Your task to perform on an android device: open the mobile data screen to see how much data has been used Image 0: 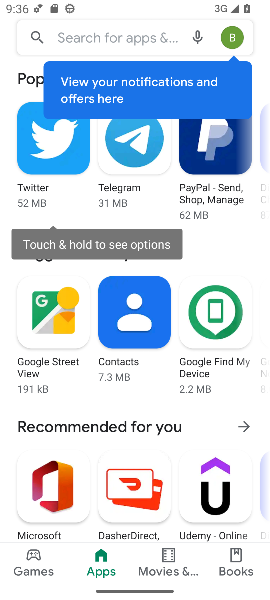
Step 0: press home button
Your task to perform on an android device: open the mobile data screen to see how much data has been used Image 1: 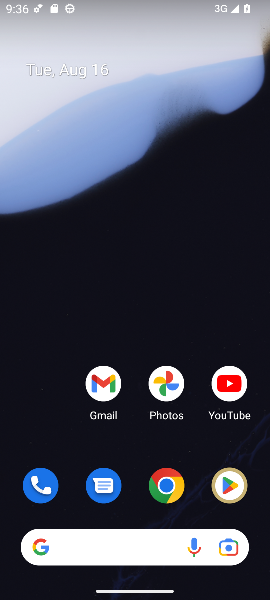
Step 1: drag from (185, 452) to (161, 166)
Your task to perform on an android device: open the mobile data screen to see how much data has been used Image 2: 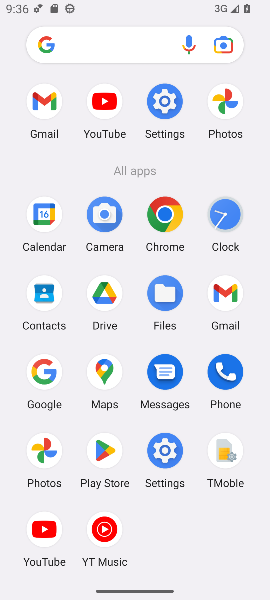
Step 2: click (167, 108)
Your task to perform on an android device: open the mobile data screen to see how much data has been used Image 3: 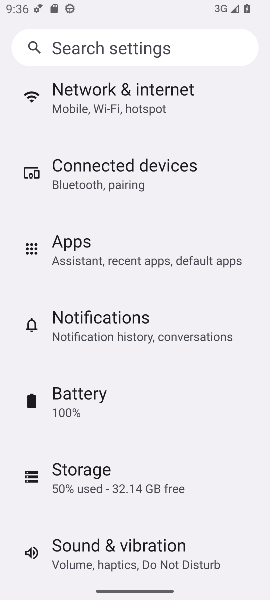
Step 3: click (147, 105)
Your task to perform on an android device: open the mobile data screen to see how much data has been used Image 4: 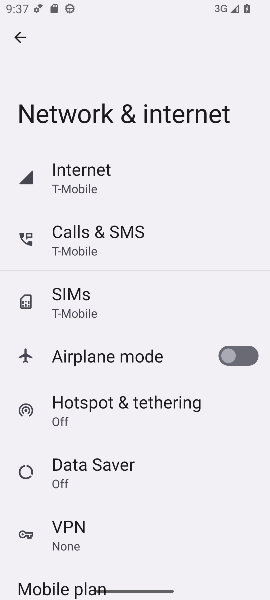
Step 4: click (153, 179)
Your task to perform on an android device: open the mobile data screen to see how much data has been used Image 5: 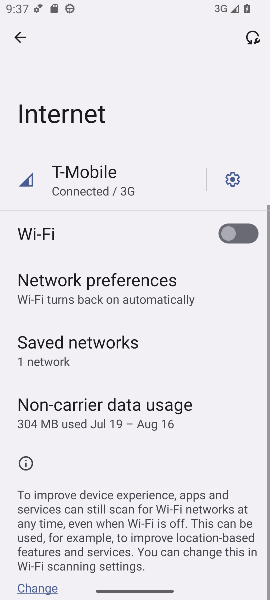
Step 5: click (108, 413)
Your task to perform on an android device: open the mobile data screen to see how much data has been used Image 6: 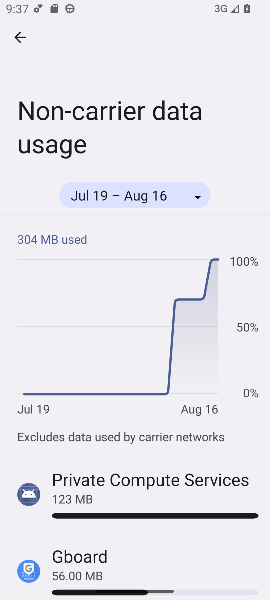
Step 6: task complete